Your task to perform on an android device: Go to accessibility settings Image 0: 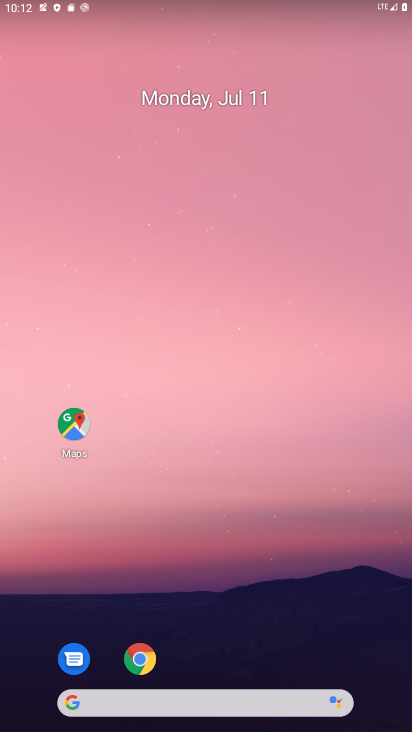
Step 0: drag from (190, 726) to (242, 179)
Your task to perform on an android device: Go to accessibility settings Image 1: 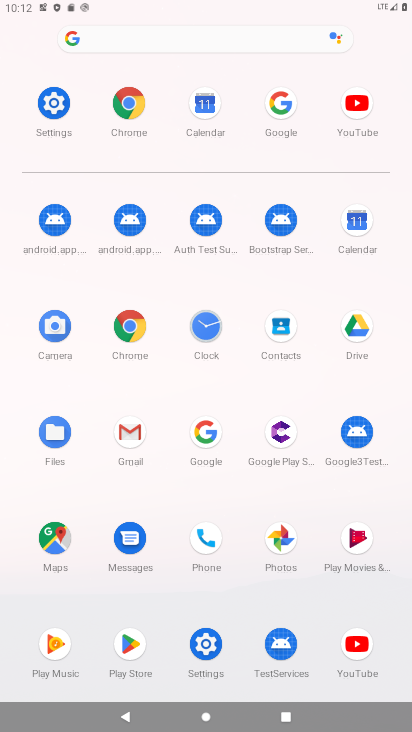
Step 1: click (51, 99)
Your task to perform on an android device: Go to accessibility settings Image 2: 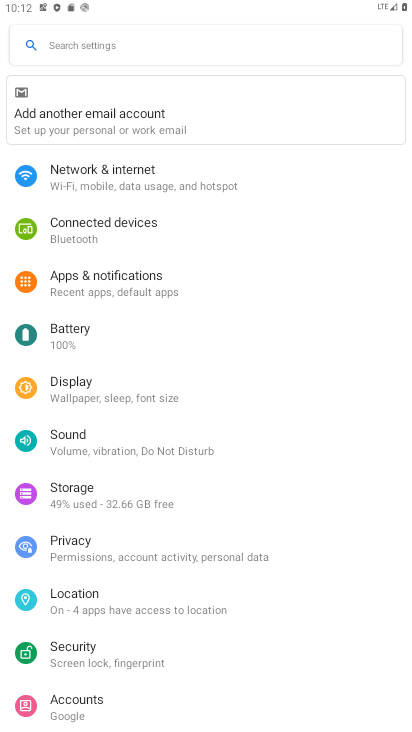
Step 2: drag from (98, 682) to (86, 337)
Your task to perform on an android device: Go to accessibility settings Image 3: 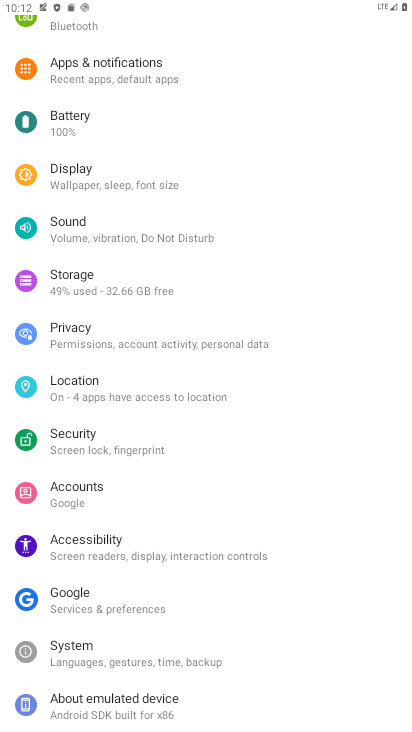
Step 3: click (105, 550)
Your task to perform on an android device: Go to accessibility settings Image 4: 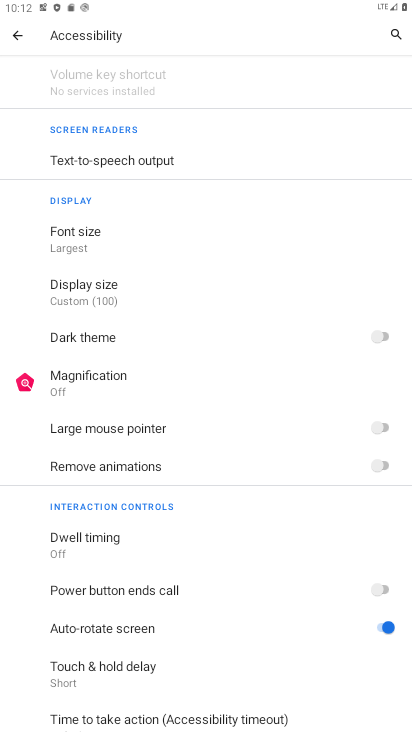
Step 4: task complete